Your task to perform on an android device: Show the shopping cart on costco.com. Image 0: 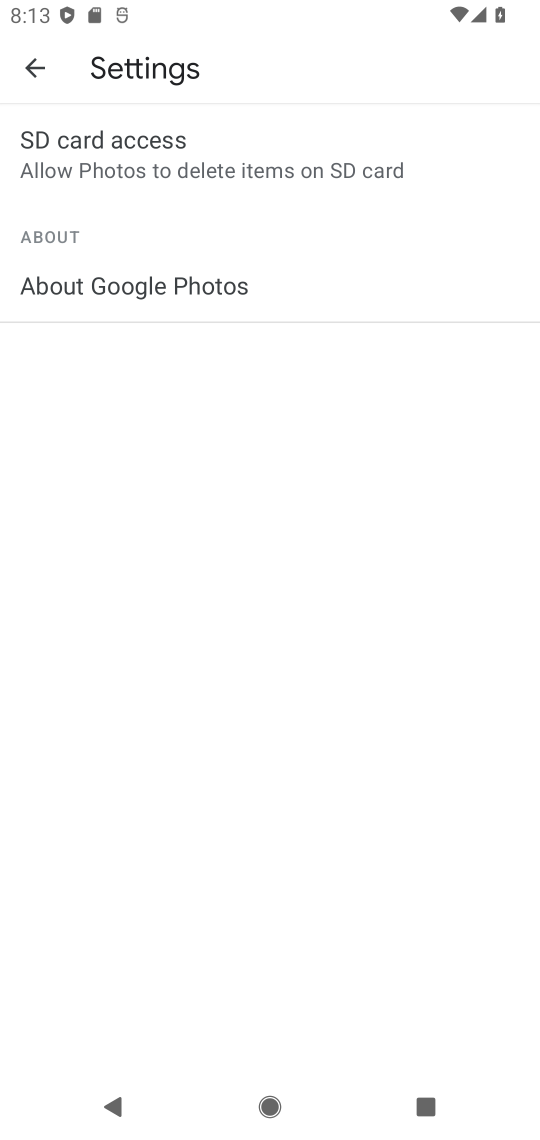
Step 0: press home button
Your task to perform on an android device: Show the shopping cart on costco.com. Image 1: 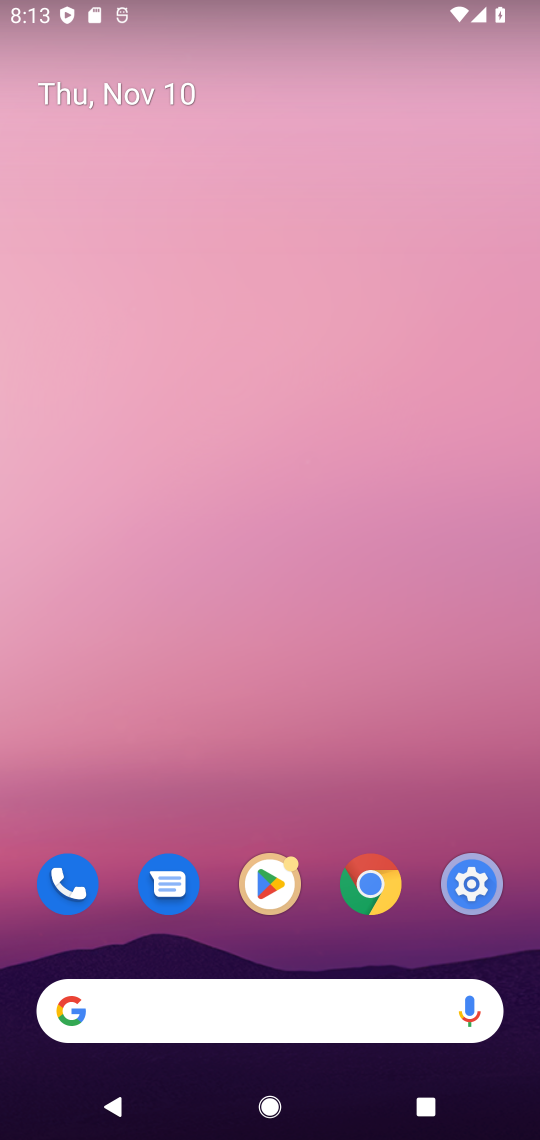
Step 1: click (231, 1020)
Your task to perform on an android device: Show the shopping cart on costco.com. Image 2: 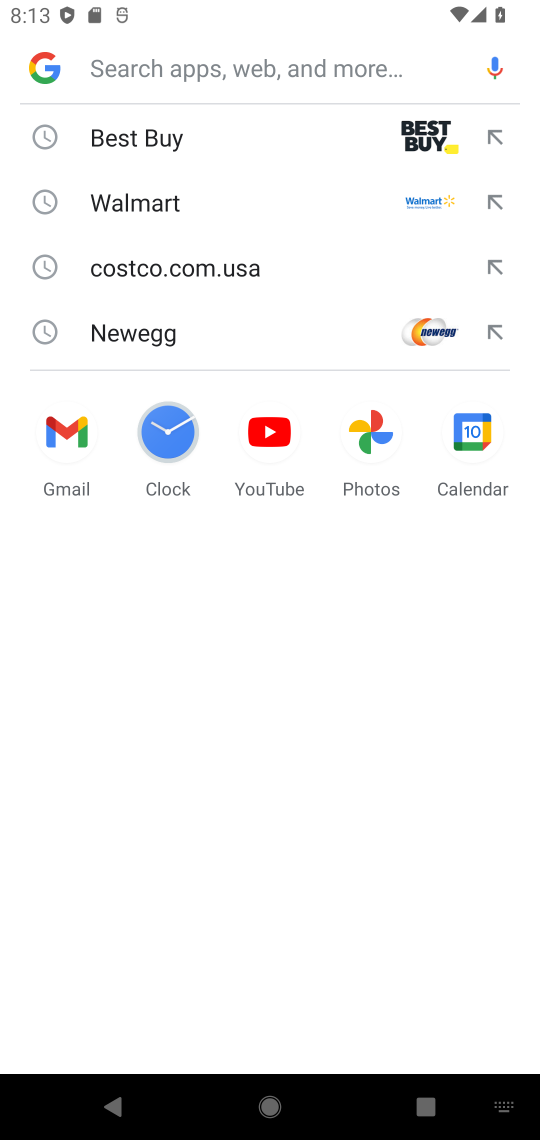
Step 2: type "costco.com."
Your task to perform on an android device: Show the shopping cart on costco.com. Image 3: 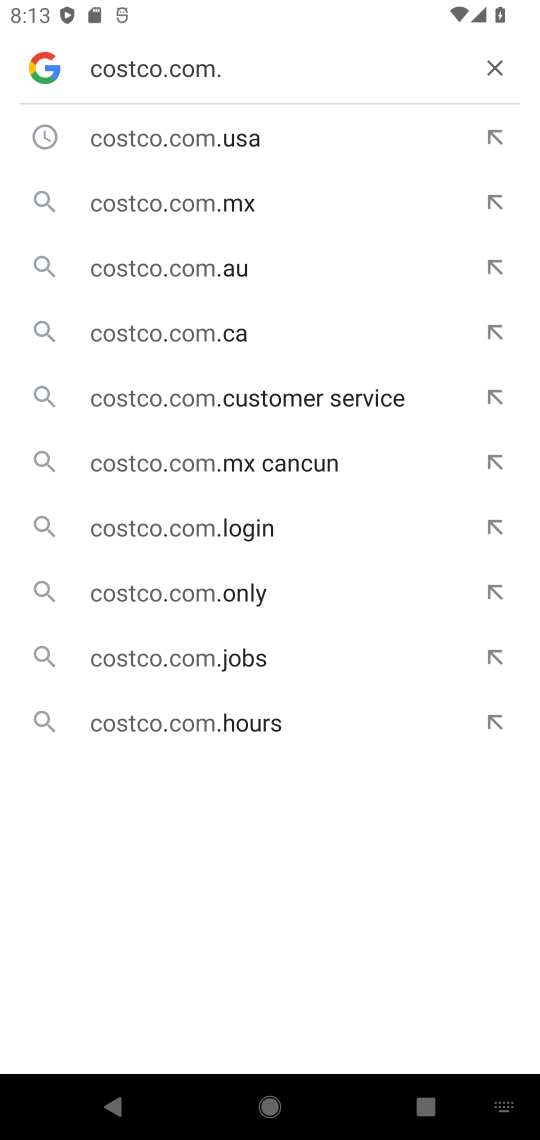
Step 3: click (229, 147)
Your task to perform on an android device: Show the shopping cart on costco.com. Image 4: 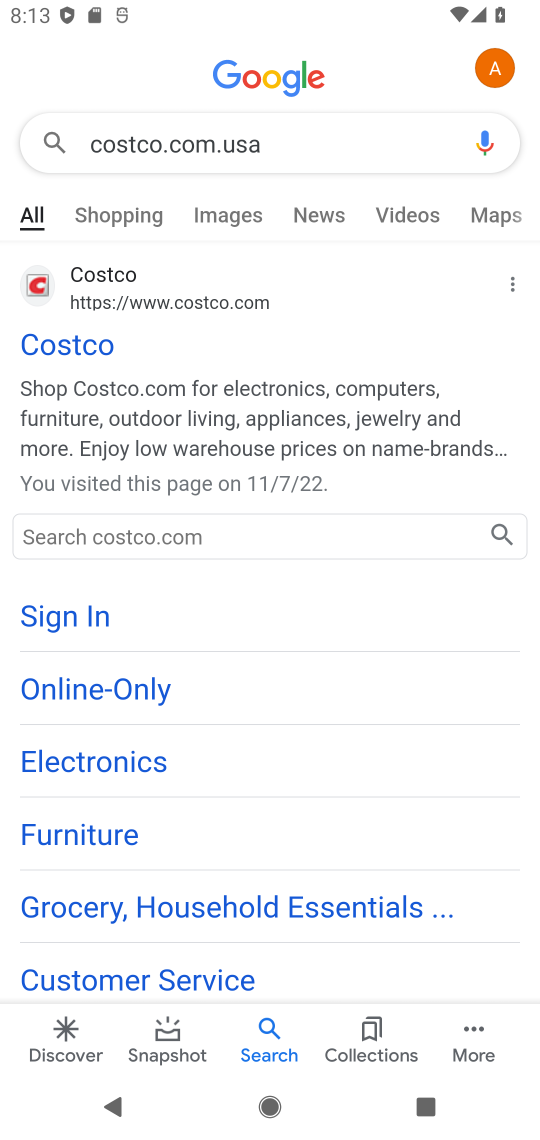
Step 4: click (86, 285)
Your task to perform on an android device: Show the shopping cart on costco.com. Image 5: 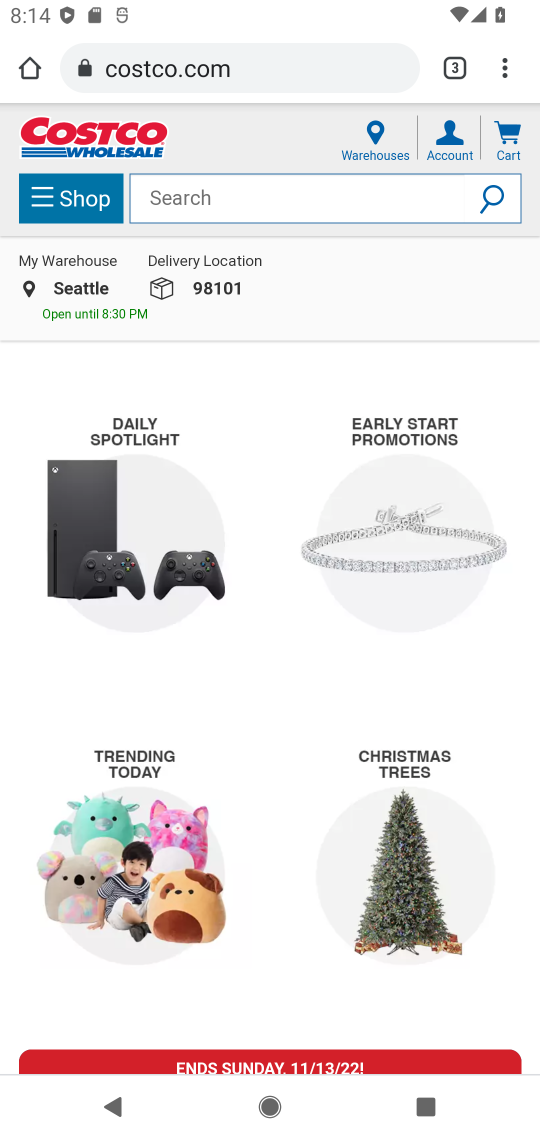
Step 5: click (507, 143)
Your task to perform on an android device: Show the shopping cart on costco.com. Image 6: 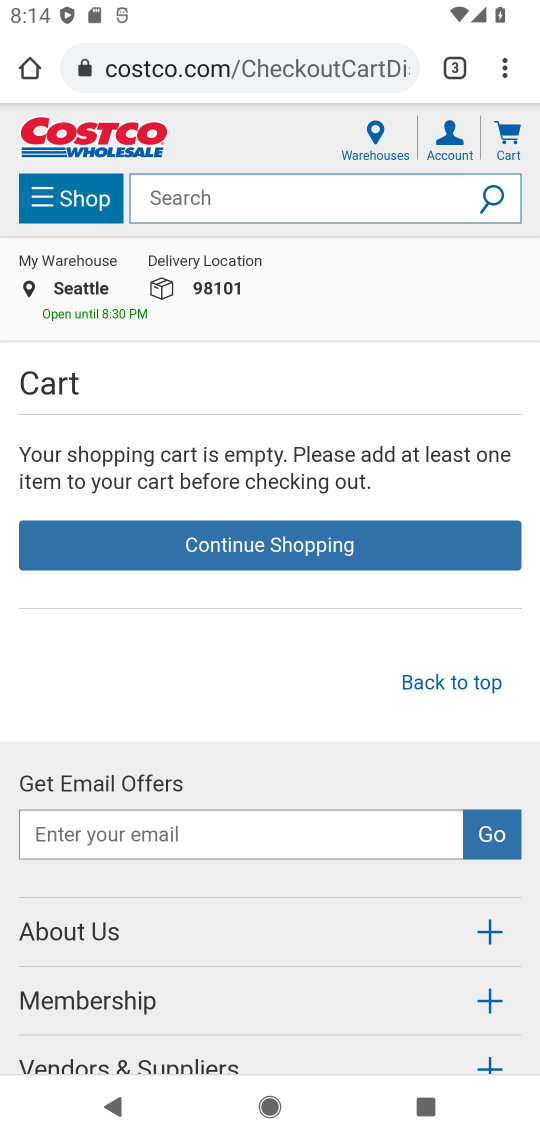
Step 6: task complete